Your task to perform on an android device: Open wifi settings Image 0: 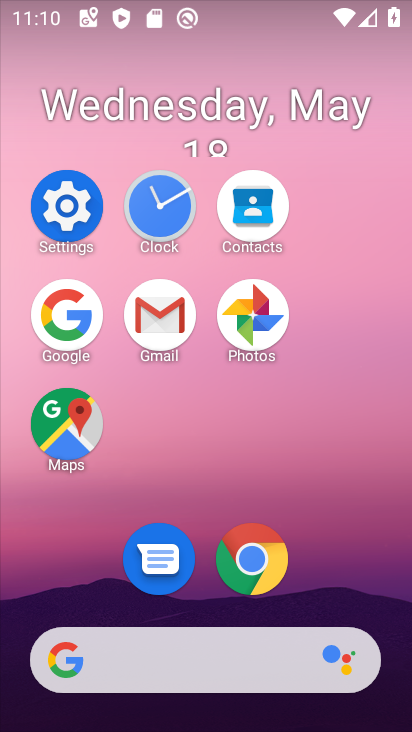
Step 0: click (53, 209)
Your task to perform on an android device: Open wifi settings Image 1: 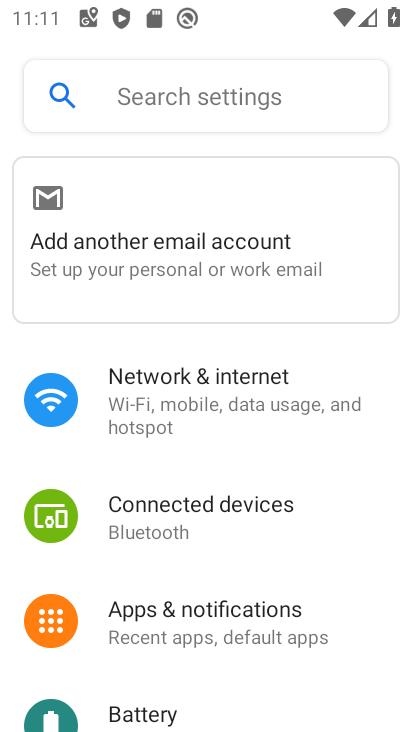
Step 1: click (179, 396)
Your task to perform on an android device: Open wifi settings Image 2: 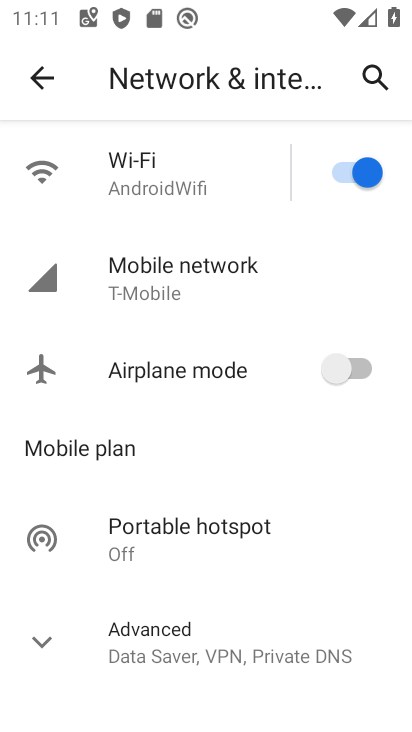
Step 2: click (187, 197)
Your task to perform on an android device: Open wifi settings Image 3: 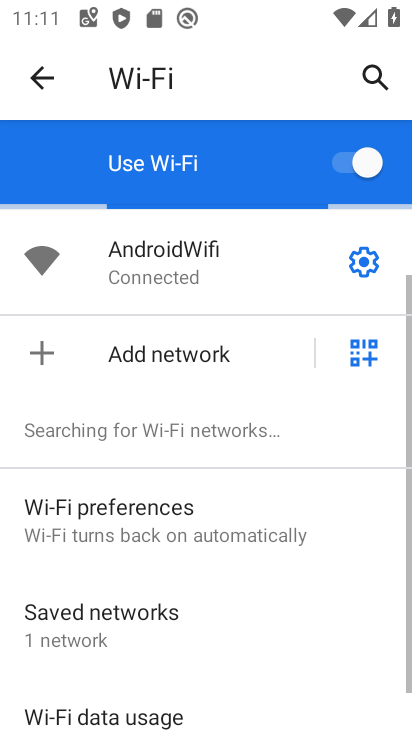
Step 3: click (366, 271)
Your task to perform on an android device: Open wifi settings Image 4: 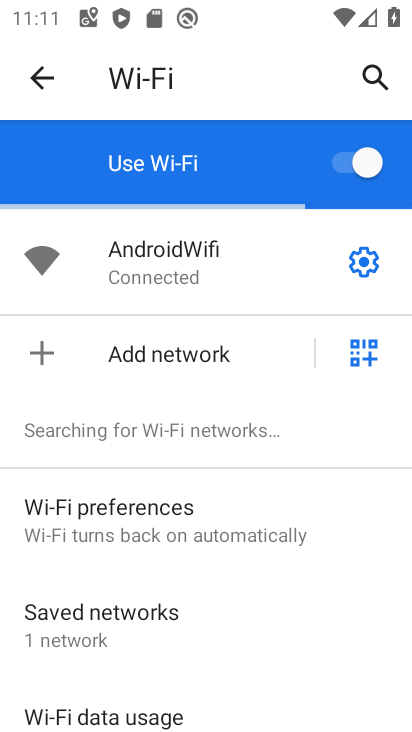
Step 4: click (364, 256)
Your task to perform on an android device: Open wifi settings Image 5: 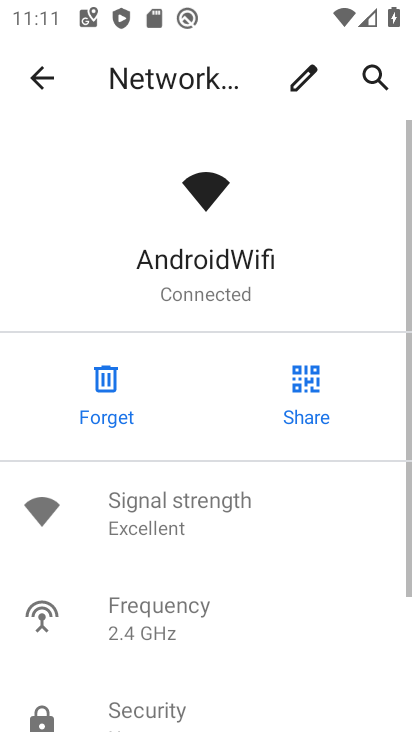
Step 5: task complete